Your task to perform on an android device: Play the new Demi Lovato video on YouTube Image 0: 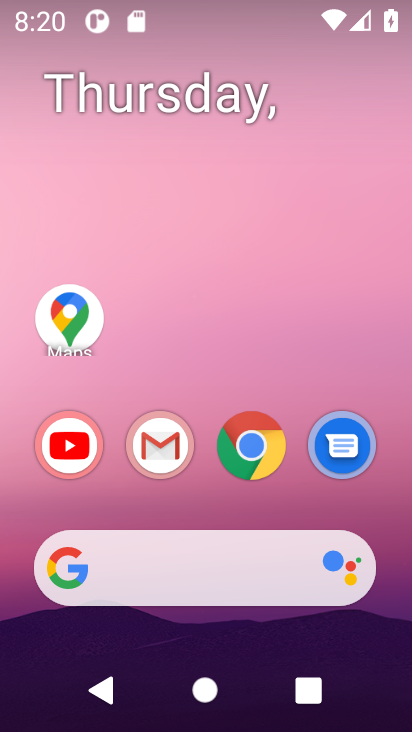
Step 0: click (48, 434)
Your task to perform on an android device: Play the new Demi Lovato video on YouTube Image 1: 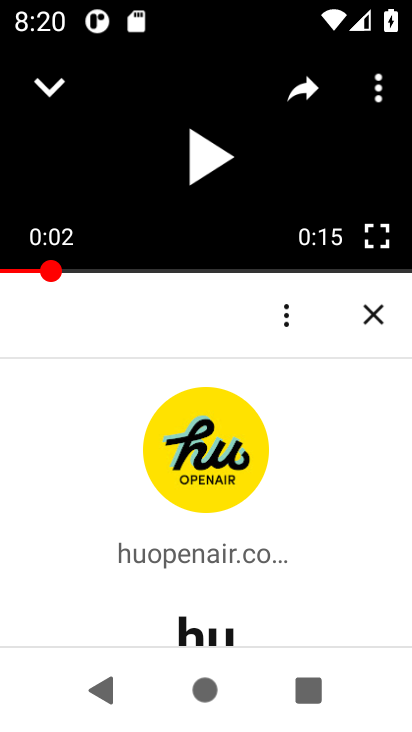
Step 1: click (62, 82)
Your task to perform on an android device: Play the new Demi Lovato video on YouTube Image 2: 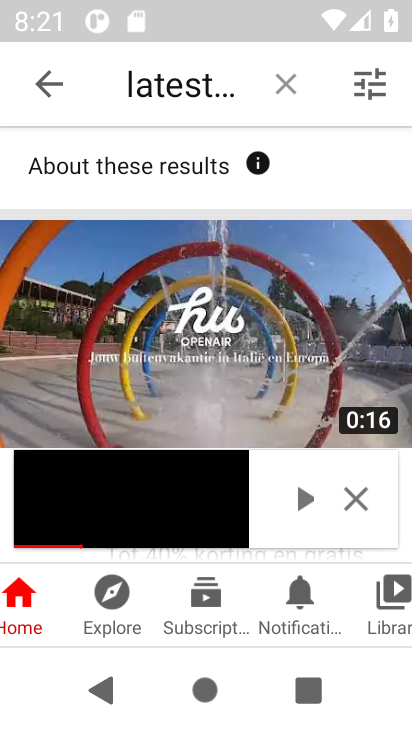
Step 2: click (290, 91)
Your task to perform on an android device: Play the new Demi Lovato video on YouTube Image 3: 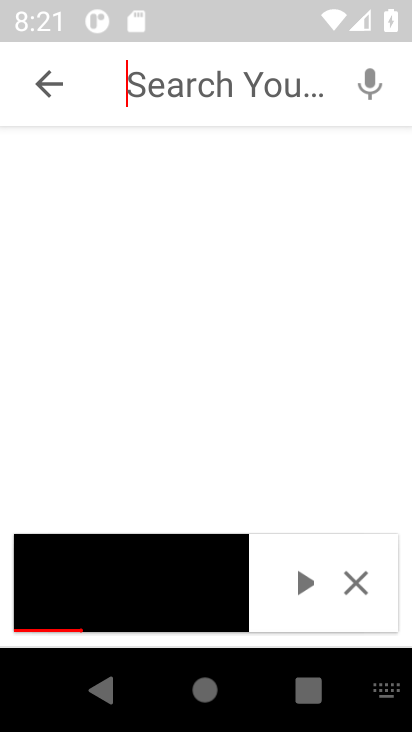
Step 3: type "new Demi Lovato video"
Your task to perform on an android device: Play the new Demi Lovato video on YouTube Image 4: 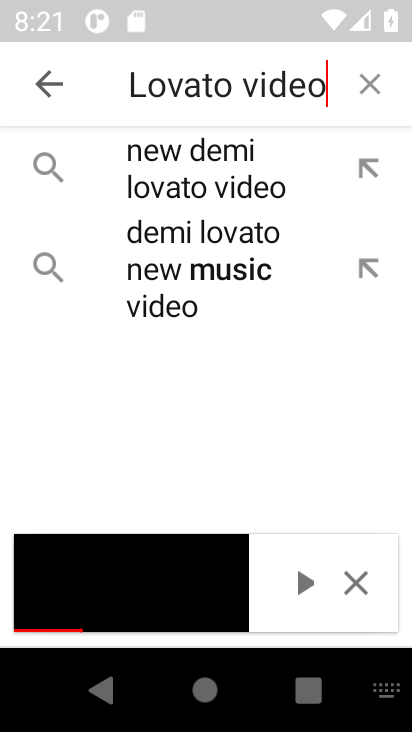
Step 4: click (214, 182)
Your task to perform on an android device: Play the new Demi Lovato video on YouTube Image 5: 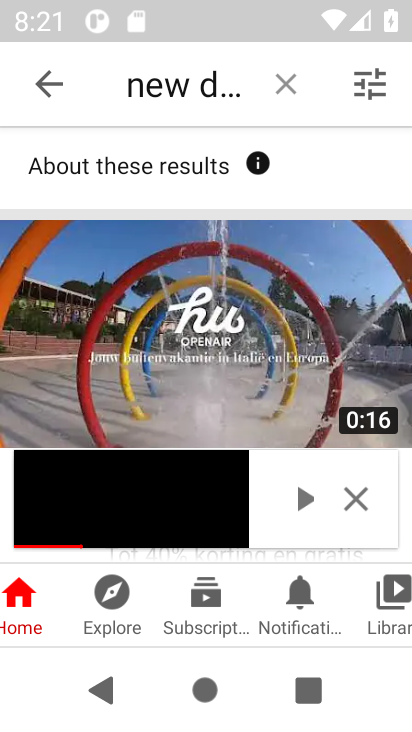
Step 5: task complete